Your task to perform on an android device: What's on my calendar today? Image 0: 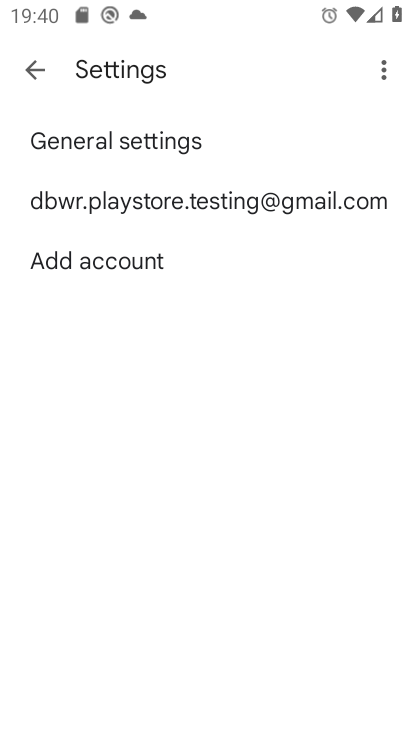
Step 0: press home button
Your task to perform on an android device: What's on my calendar today? Image 1: 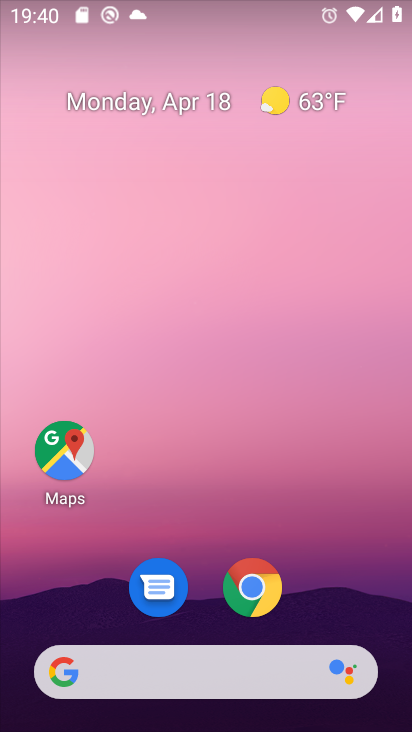
Step 1: drag from (332, 595) to (316, 308)
Your task to perform on an android device: What's on my calendar today? Image 2: 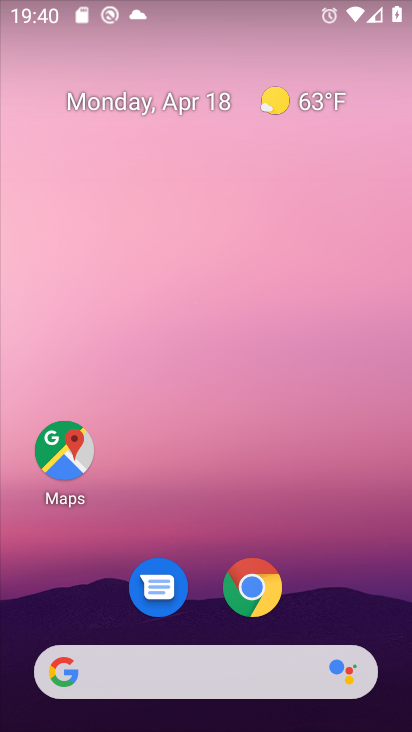
Step 2: drag from (345, 599) to (339, 144)
Your task to perform on an android device: What's on my calendar today? Image 3: 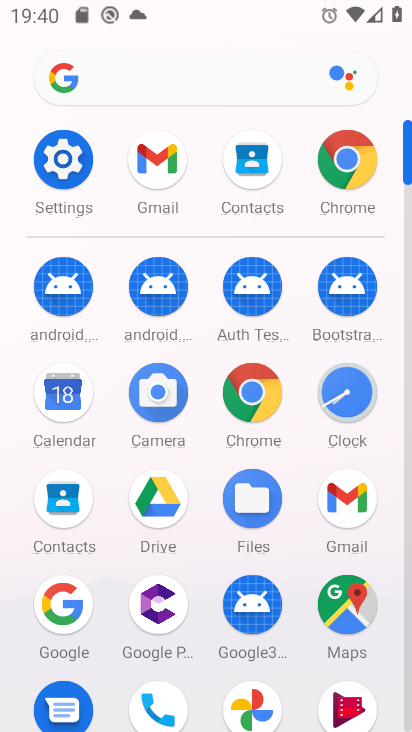
Step 3: click (74, 398)
Your task to perform on an android device: What's on my calendar today? Image 4: 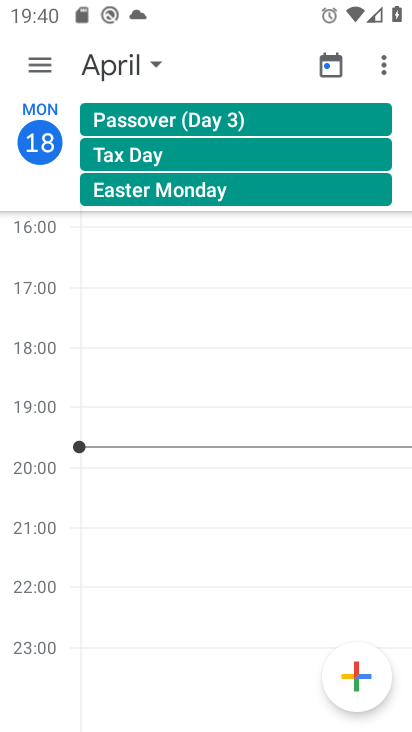
Step 4: click (44, 141)
Your task to perform on an android device: What's on my calendar today? Image 5: 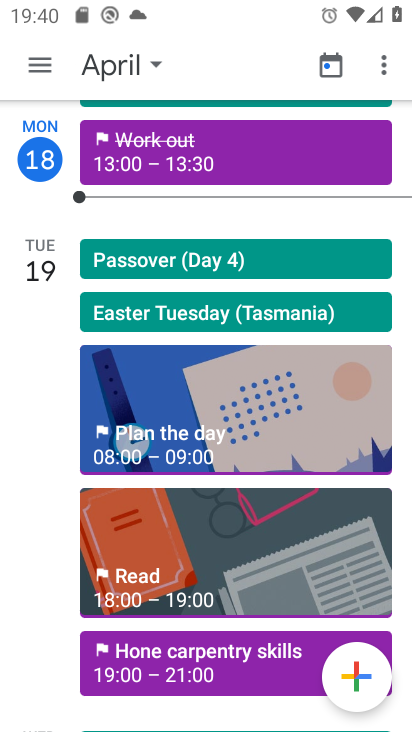
Step 5: click (40, 268)
Your task to perform on an android device: What's on my calendar today? Image 6: 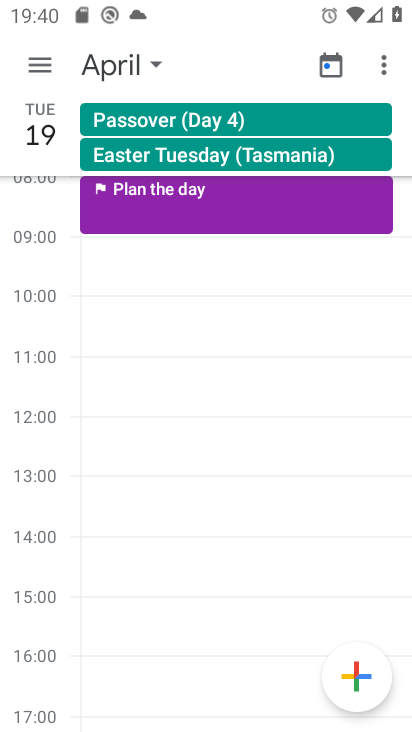
Step 6: task complete